Your task to perform on an android device: turn off translation in the chrome app Image 0: 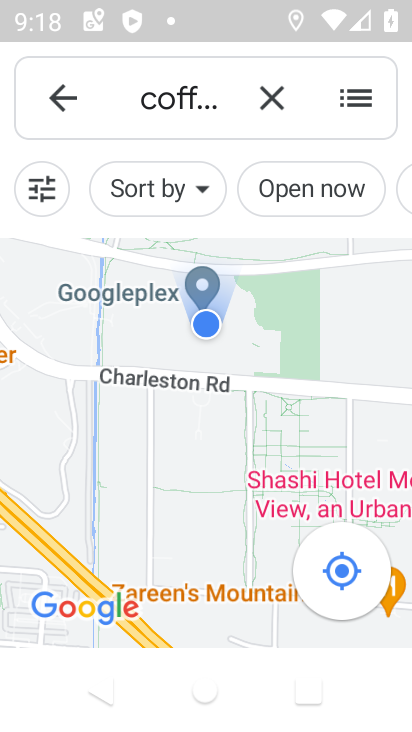
Step 0: drag from (224, 522) to (192, 38)
Your task to perform on an android device: turn off translation in the chrome app Image 1: 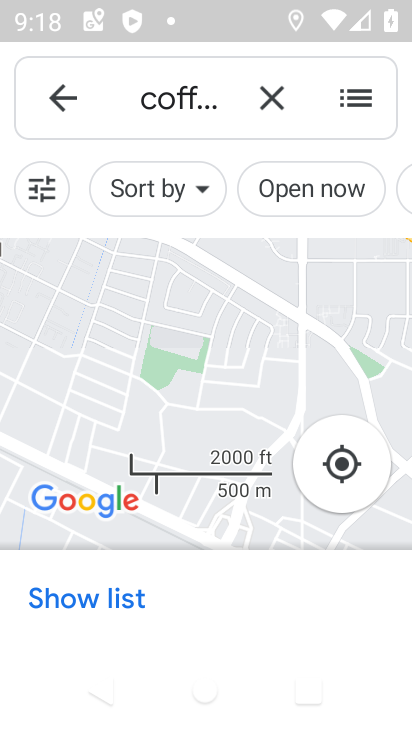
Step 1: press home button
Your task to perform on an android device: turn off translation in the chrome app Image 2: 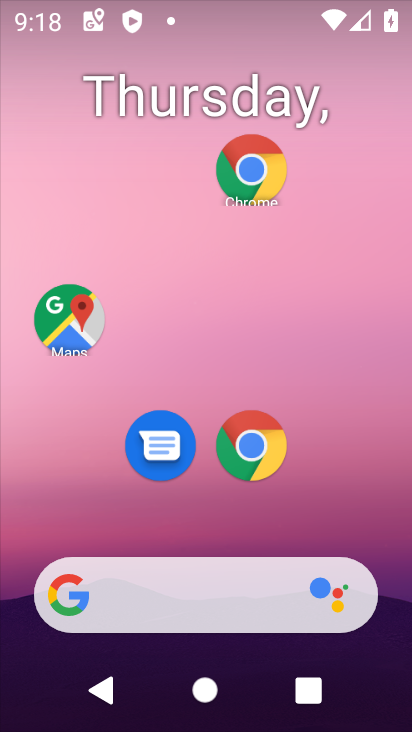
Step 2: drag from (206, 553) to (179, 0)
Your task to perform on an android device: turn off translation in the chrome app Image 3: 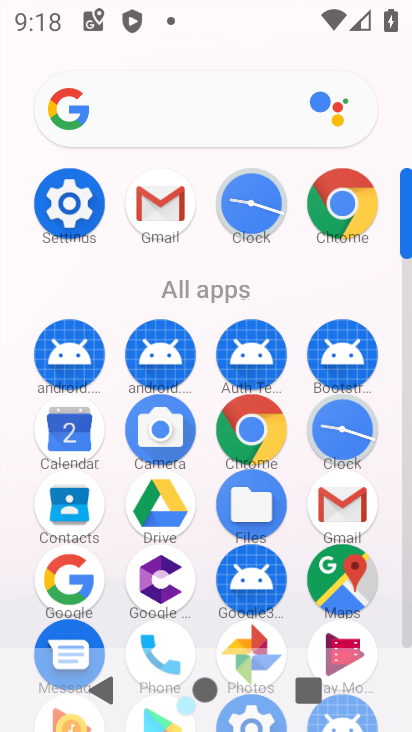
Step 3: click (265, 439)
Your task to perform on an android device: turn off translation in the chrome app Image 4: 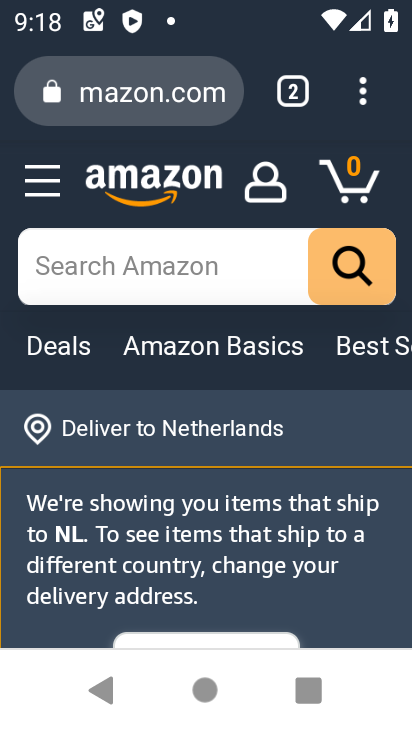
Step 4: click (354, 96)
Your task to perform on an android device: turn off translation in the chrome app Image 5: 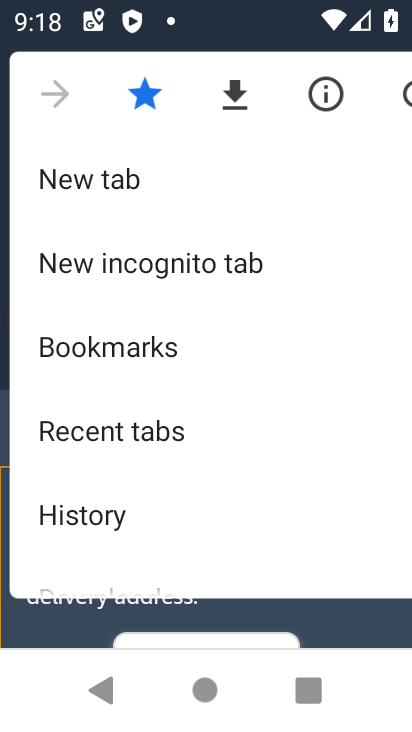
Step 5: drag from (115, 514) to (67, 89)
Your task to perform on an android device: turn off translation in the chrome app Image 6: 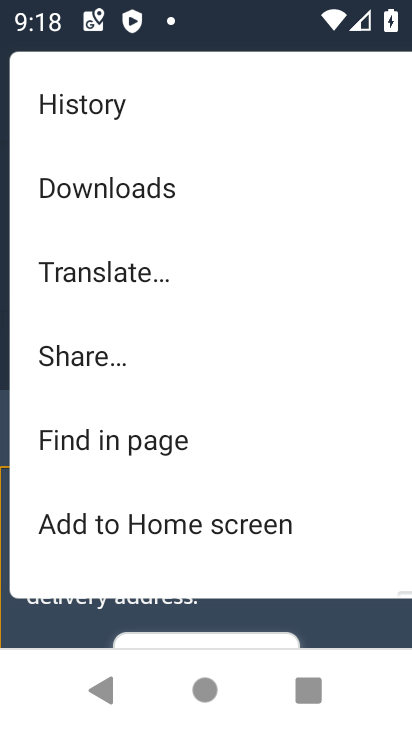
Step 6: drag from (114, 526) to (94, 62)
Your task to perform on an android device: turn off translation in the chrome app Image 7: 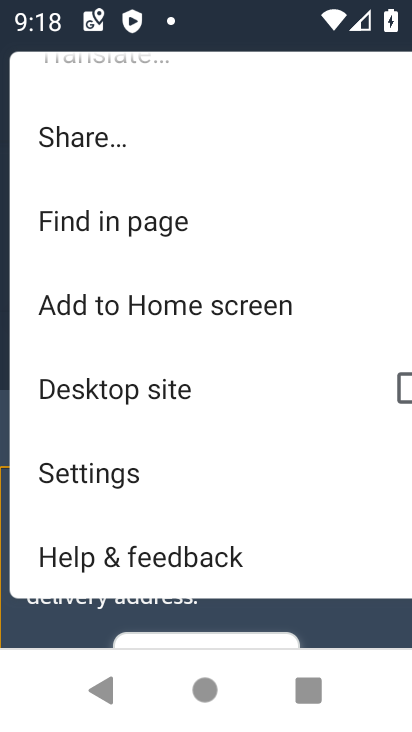
Step 7: click (126, 454)
Your task to perform on an android device: turn off translation in the chrome app Image 8: 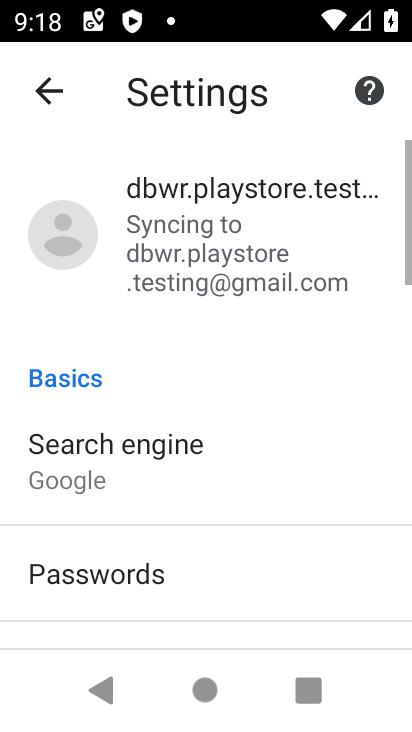
Step 8: drag from (174, 531) to (79, 13)
Your task to perform on an android device: turn off translation in the chrome app Image 9: 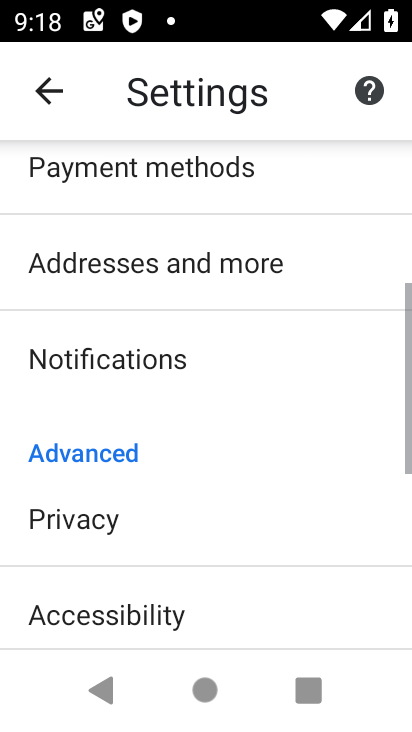
Step 9: drag from (91, 538) to (47, 11)
Your task to perform on an android device: turn off translation in the chrome app Image 10: 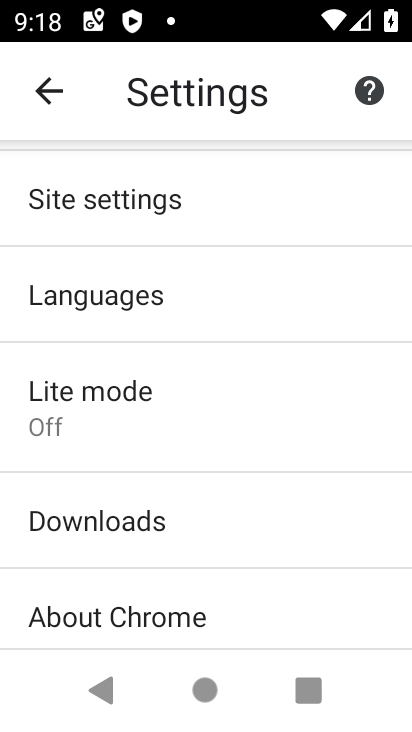
Step 10: click (105, 309)
Your task to perform on an android device: turn off translation in the chrome app Image 11: 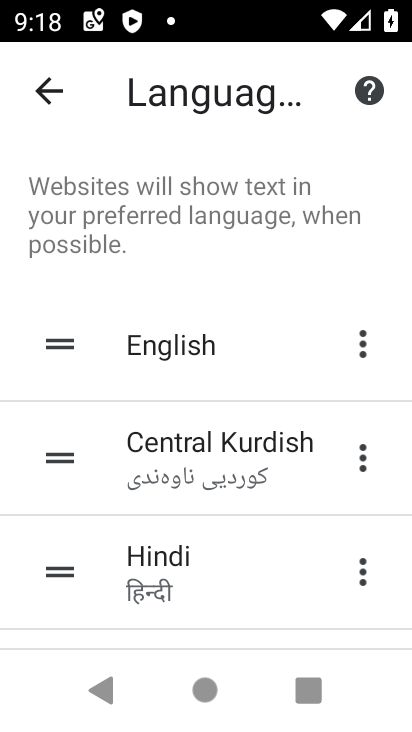
Step 11: task complete